Your task to perform on an android device: Open Youtube and go to the subscriptions tab Image 0: 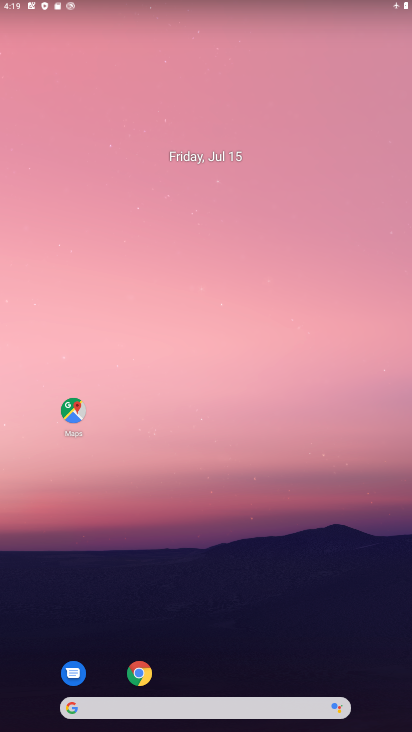
Step 0: drag from (240, 597) to (264, 156)
Your task to perform on an android device: Open Youtube and go to the subscriptions tab Image 1: 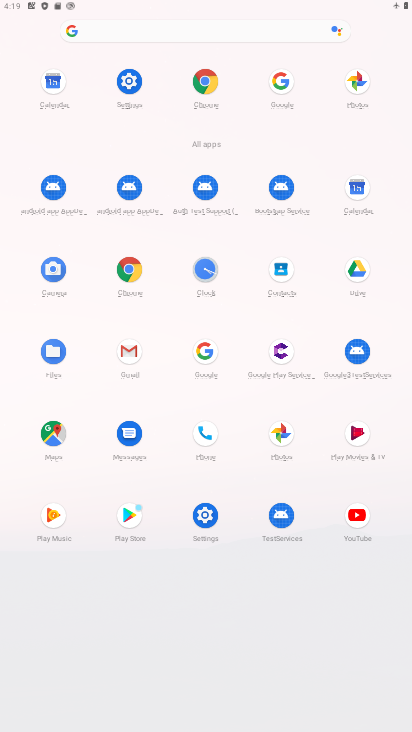
Step 1: click (348, 515)
Your task to perform on an android device: Open Youtube and go to the subscriptions tab Image 2: 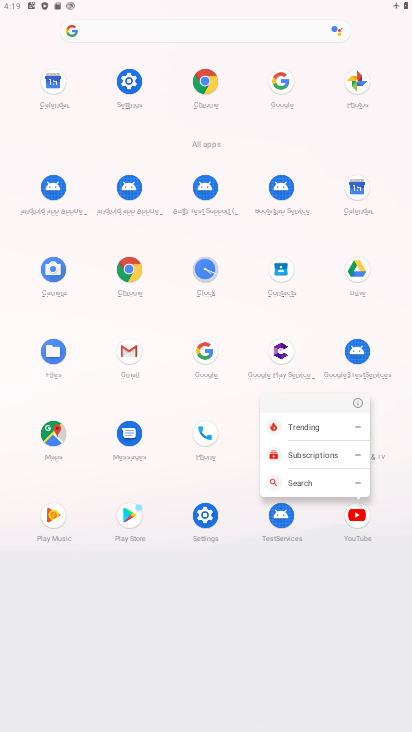
Step 2: click (329, 456)
Your task to perform on an android device: Open Youtube and go to the subscriptions tab Image 3: 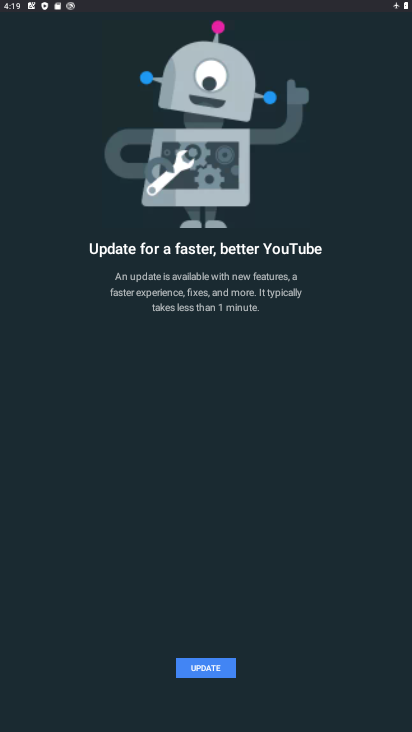
Step 3: task complete